Your task to perform on an android device: allow notifications from all sites in the chrome app Image 0: 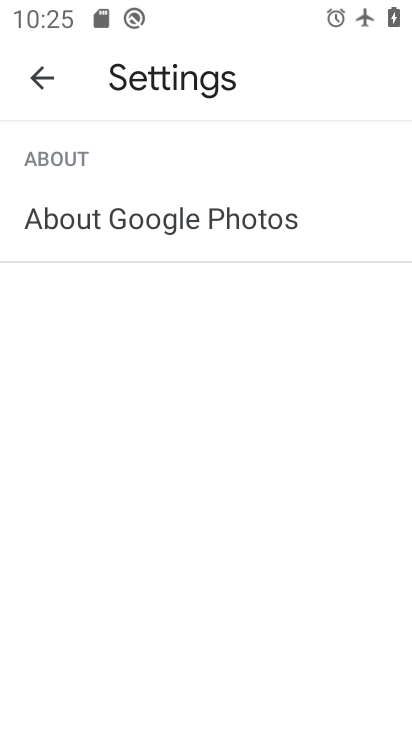
Step 0: press home button
Your task to perform on an android device: allow notifications from all sites in the chrome app Image 1: 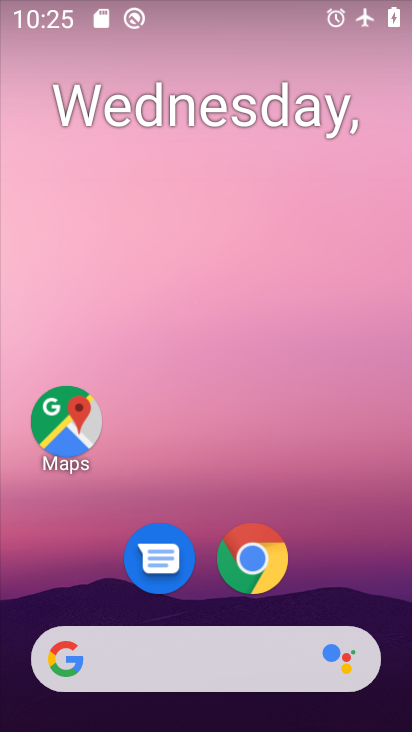
Step 1: drag from (340, 586) to (353, 149)
Your task to perform on an android device: allow notifications from all sites in the chrome app Image 2: 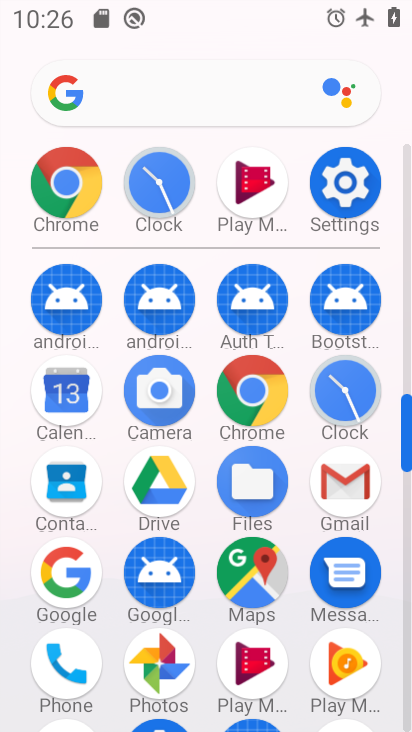
Step 2: click (270, 399)
Your task to perform on an android device: allow notifications from all sites in the chrome app Image 3: 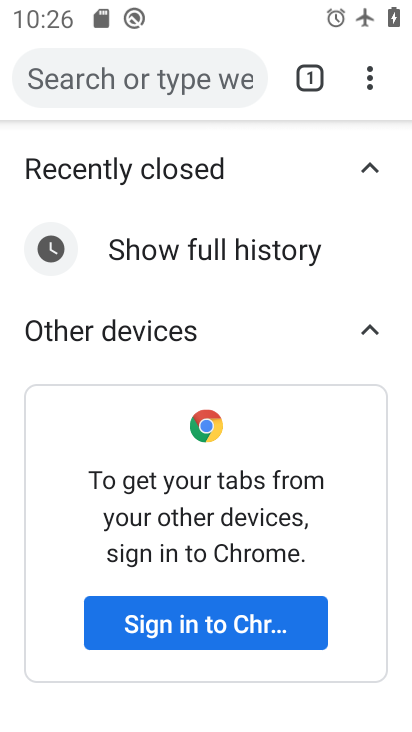
Step 3: click (370, 88)
Your task to perform on an android device: allow notifications from all sites in the chrome app Image 4: 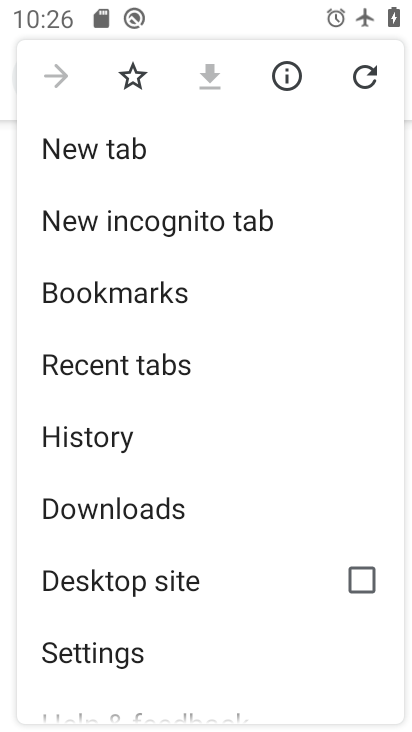
Step 4: drag from (316, 368) to (342, 267)
Your task to perform on an android device: allow notifications from all sites in the chrome app Image 5: 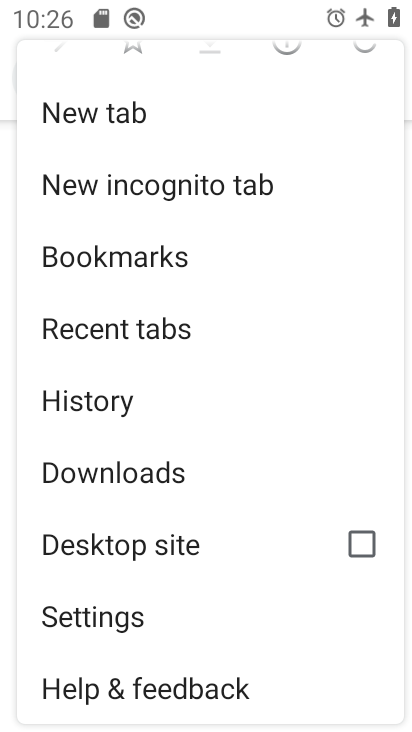
Step 5: drag from (316, 437) to (318, 309)
Your task to perform on an android device: allow notifications from all sites in the chrome app Image 6: 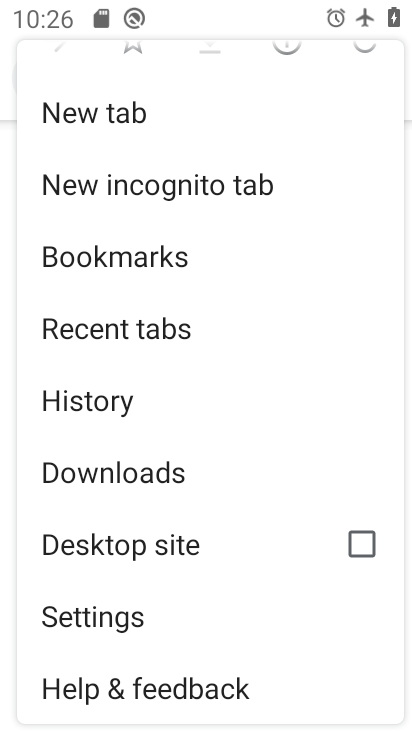
Step 6: click (176, 610)
Your task to perform on an android device: allow notifications from all sites in the chrome app Image 7: 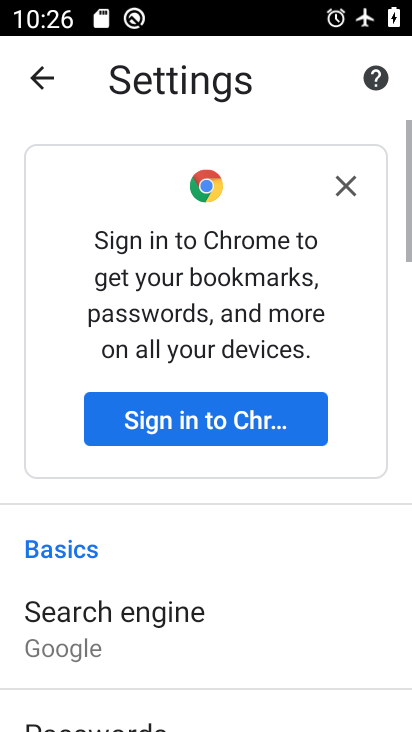
Step 7: drag from (352, 522) to (375, 431)
Your task to perform on an android device: allow notifications from all sites in the chrome app Image 8: 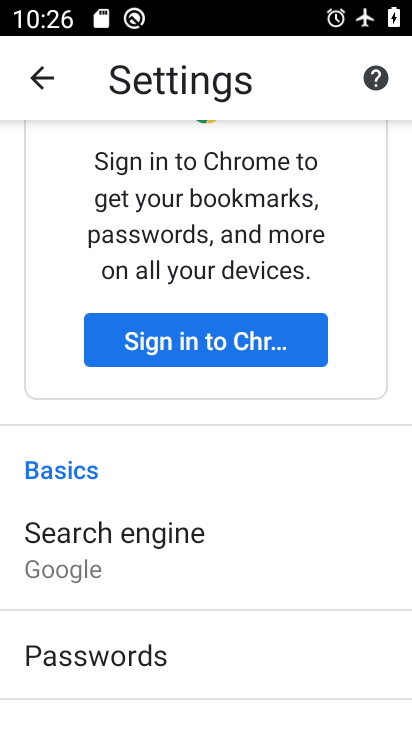
Step 8: drag from (355, 511) to (365, 426)
Your task to perform on an android device: allow notifications from all sites in the chrome app Image 9: 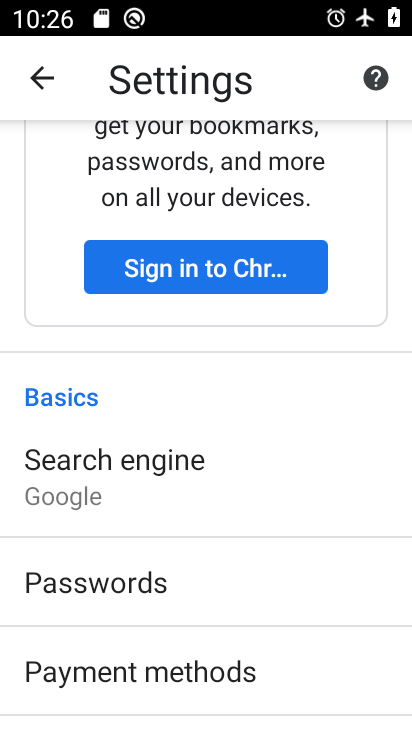
Step 9: drag from (347, 533) to (353, 442)
Your task to perform on an android device: allow notifications from all sites in the chrome app Image 10: 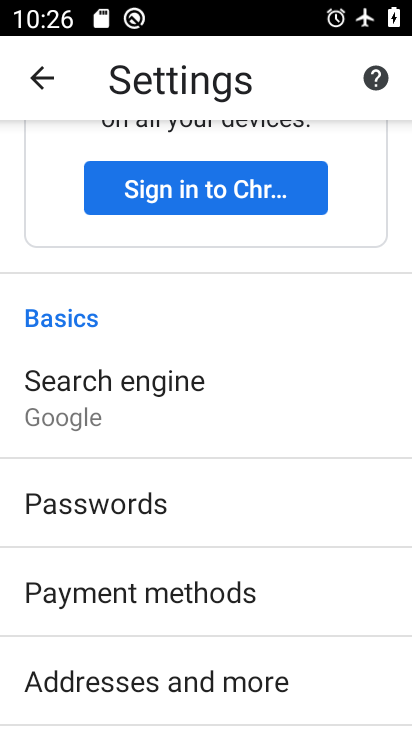
Step 10: drag from (344, 518) to (350, 436)
Your task to perform on an android device: allow notifications from all sites in the chrome app Image 11: 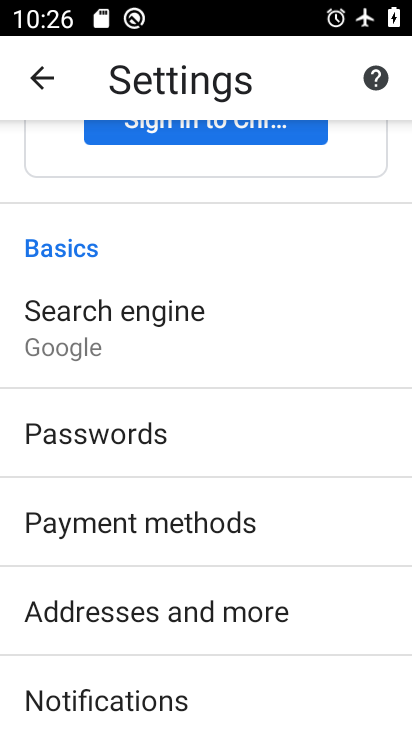
Step 11: drag from (336, 522) to (336, 434)
Your task to perform on an android device: allow notifications from all sites in the chrome app Image 12: 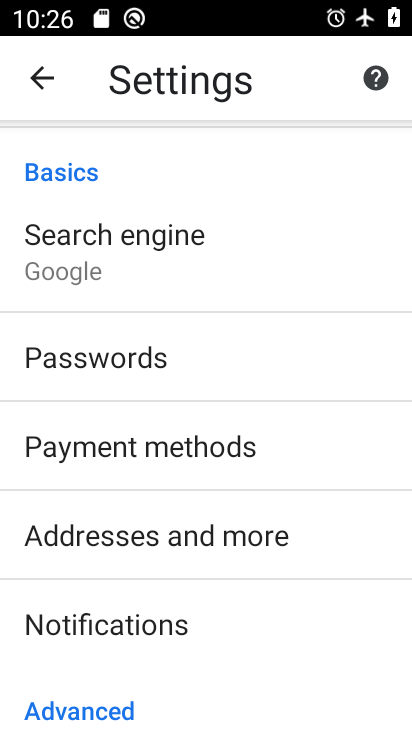
Step 12: drag from (342, 625) to (362, 546)
Your task to perform on an android device: allow notifications from all sites in the chrome app Image 13: 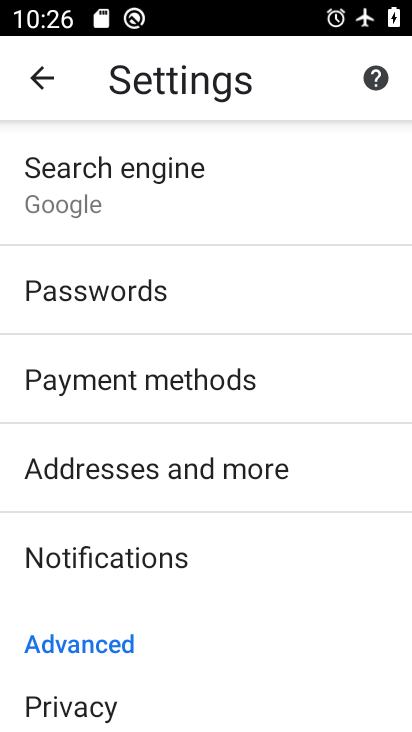
Step 13: drag from (346, 627) to (353, 500)
Your task to perform on an android device: allow notifications from all sites in the chrome app Image 14: 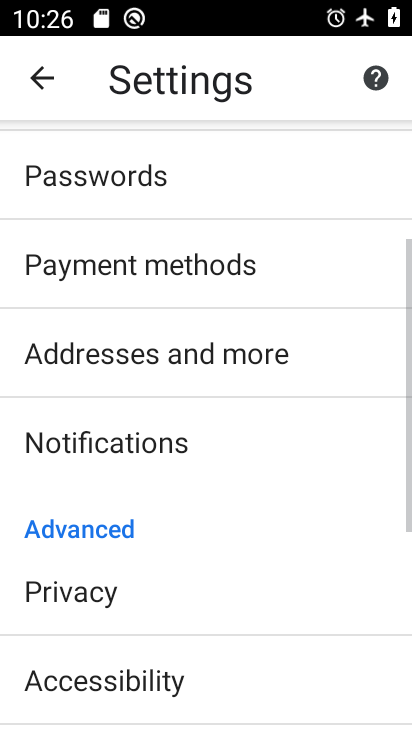
Step 14: drag from (356, 603) to (360, 432)
Your task to perform on an android device: allow notifications from all sites in the chrome app Image 15: 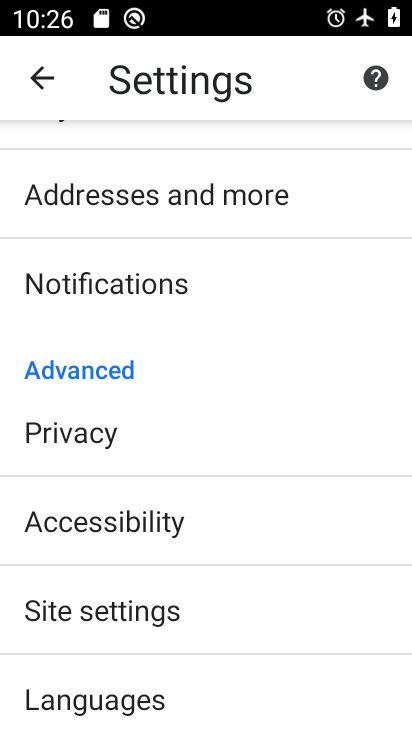
Step 15: drag from (342, 587) to (344, 331)
Your task to perform on an android device: allow notifications from all sites in the chrome app Image 16: 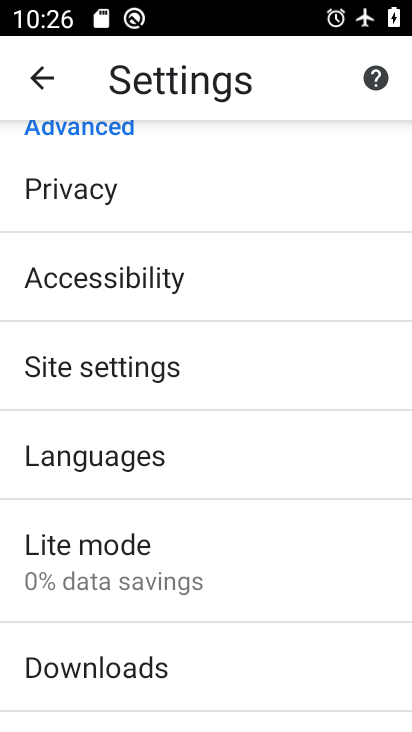
Step 16: drag from (317, 373) to (317, 462)
Your task to perform on an android device: allow notifications from all sites in the chrome app Image 17: 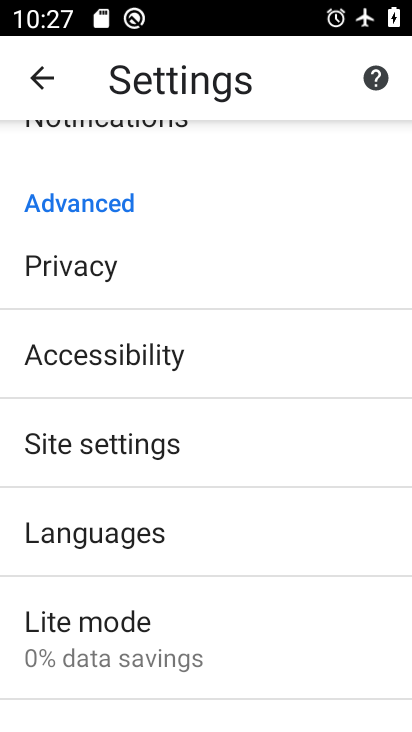
Step 17: drag from (289, 566) to (313, 396)
Your task to perform on an android device: allow notifications from all sites in the chrome app Image 18: 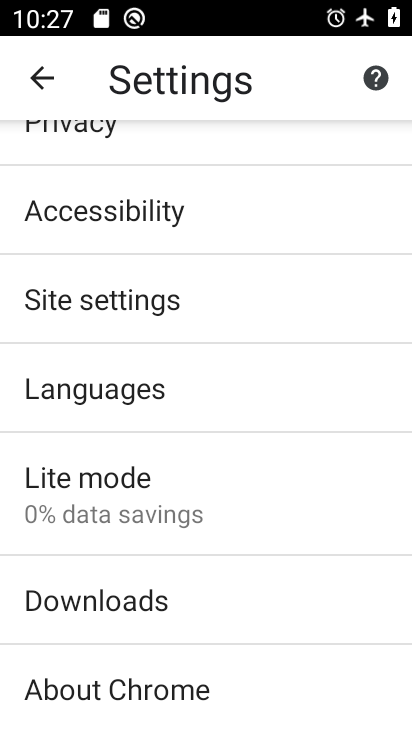
Step 18: drag from (296, 552) to (300, 423)
Your task to perform on an android device: allow notifications from all sites in the chrome app Image 19: 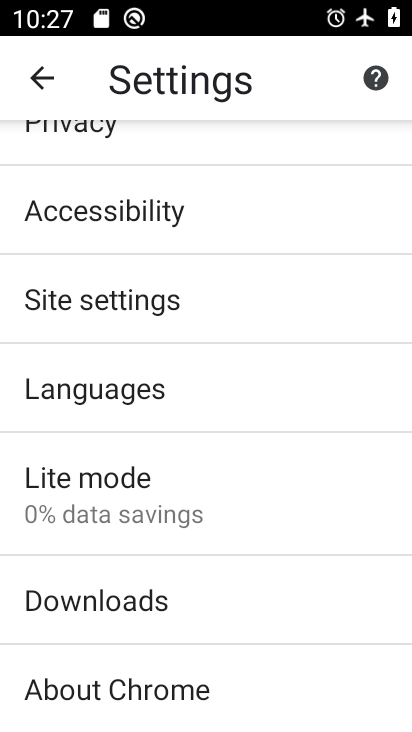
Step 19: drag from (297, 327) to (299, 438)
Your task to perform on an android device: allow notifications from all sites in the chrome app Image 20: 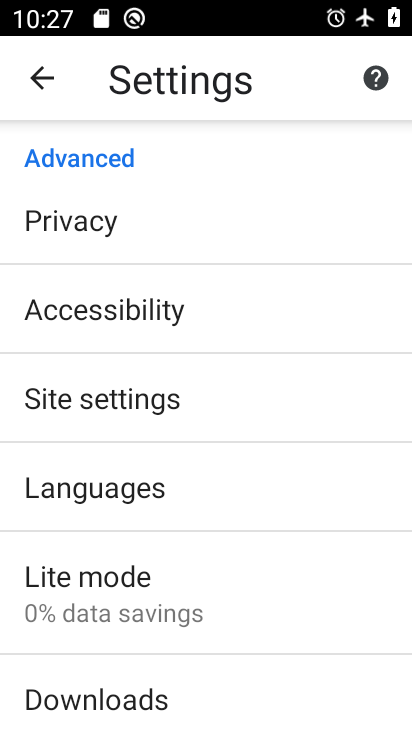
Step 20: click (215, 392)
Your task to perform on an android device: allow notifications from all sites in the chrome app Image 21: 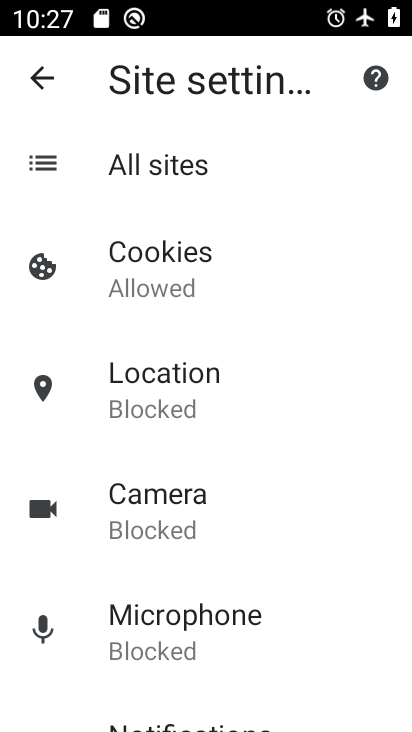
Step 21: drag from (314, 498) to (316, 374)
Your task to perform on an android device: allow notifications from all sites in the chrome app Image 22: 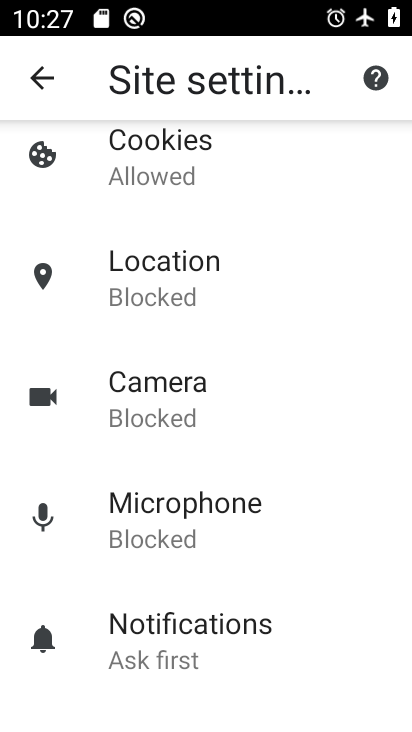
Step 22: drag from (297, 498) to (296, 334)
Your task to perform on an android device: allow notifications from all sites in the chrome app Image 23: 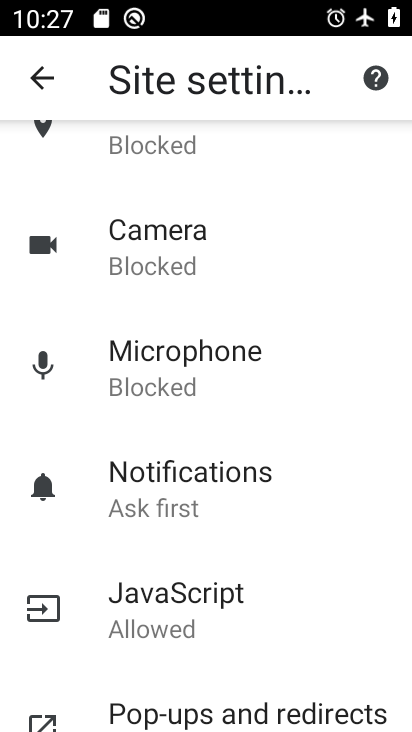
Step 23: drag from (335, 467) to (335, 273)
Your task to perform on an android device: allow notifications from all sites in the chrome app Image 24: 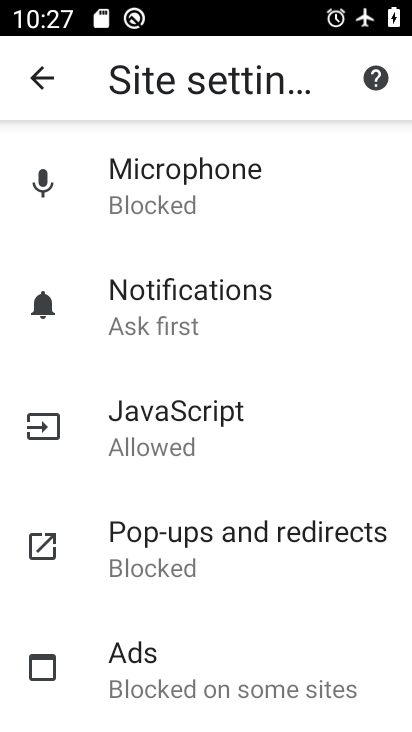
Step 24: drag from (337, 261) to (334, 372)
Your task to perform on an android device: allow notifications from all sites in the chrome app Image 25: 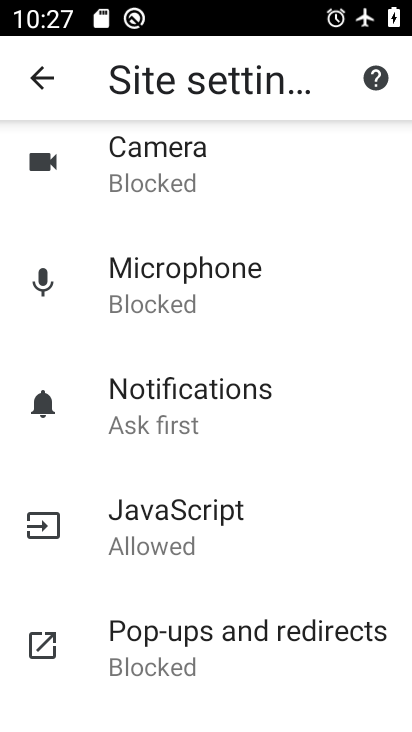
Step 25: click (284, 399)
Your task to perform on an android device: allow notifications from all sites in the chrome app Image 26: 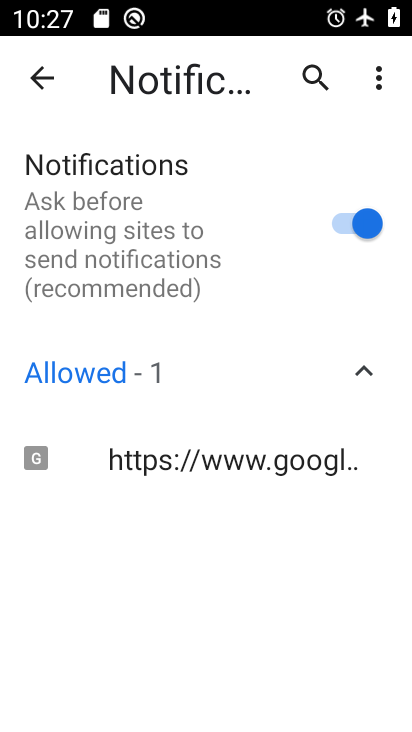
Step 26: task complete